Your task to perform on an android device: turn vacation reply on in the gmail app Image 0: 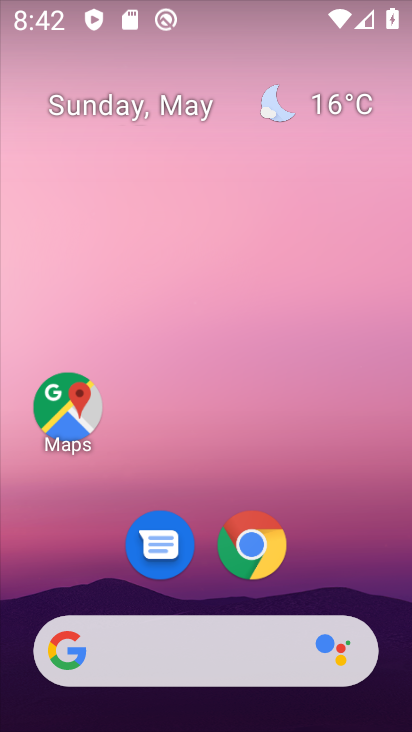
Step 0: drag from (347, 556) to (319, 47)
Your task to perform on an android device: turn vacation reply on in the gmail app Image 1: 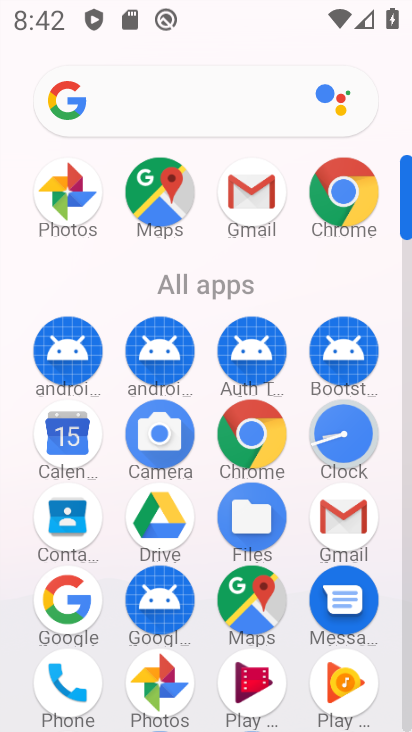
Step 1: click (257, 192)
Your task to perform on an android device: turn vacation reply on in the gmail app Image 2: 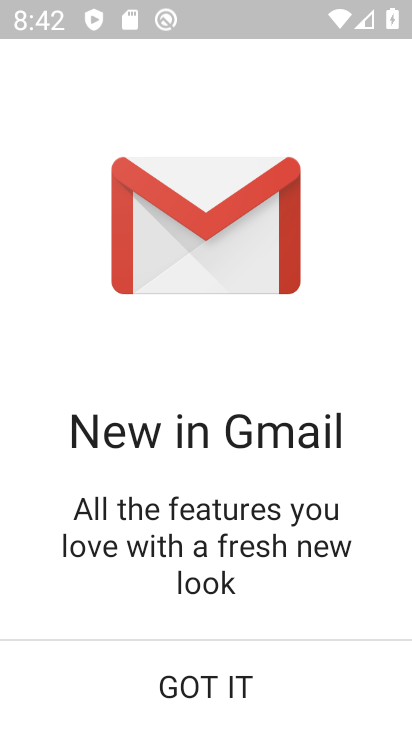
Step 2: click (196, 693)
Your task to perform on an android device: turn vacation reply on in the gmail app Image 3: 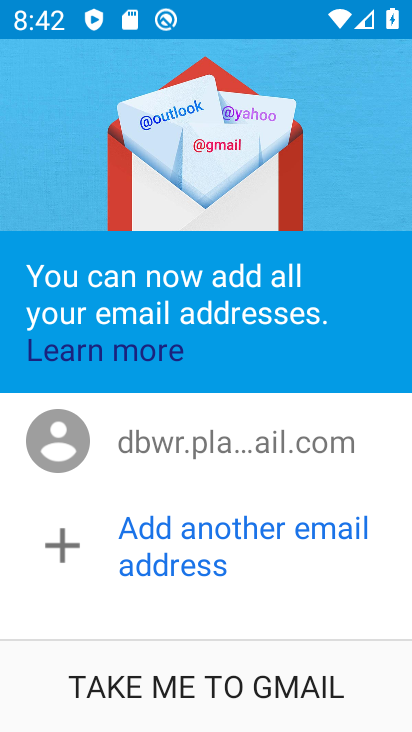
Step 3: click (239, 680)
Your task to perform on an android device: turn vacation reply on in the gmail app Image 4: 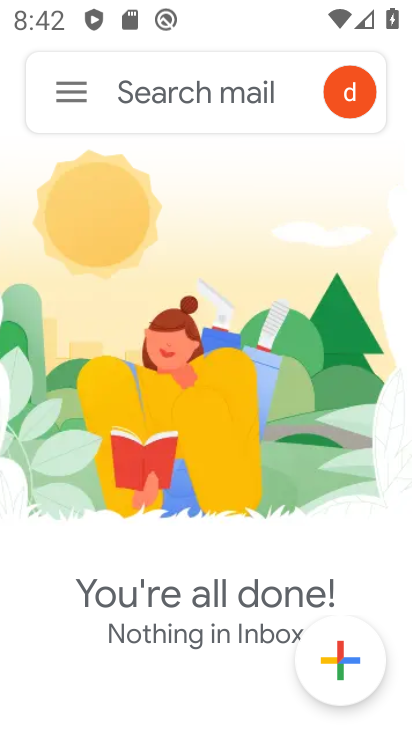
Step 4: click (65, 90)
Your task to perform on an android device: turn vacation reply on in the gmail app Image 5: 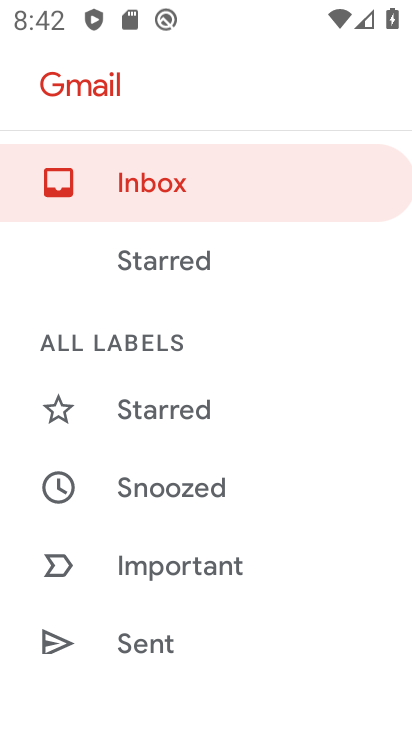
Step 5: drag from (233, 615) to (293, 268)
Your task to perform on an android device: turn vacation reply on in the gmail app Image 6: 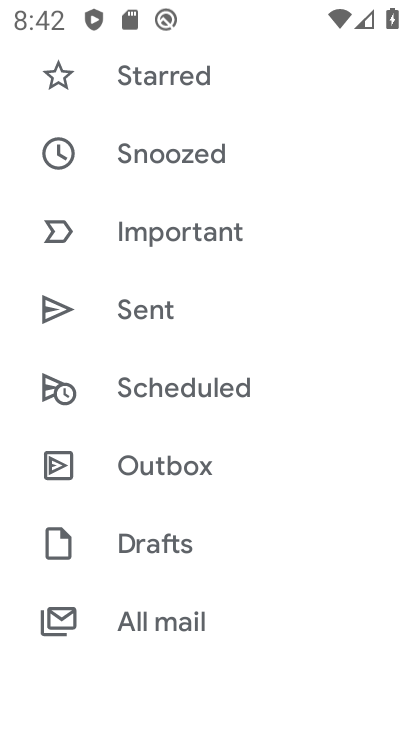
Step 6: drag from (286, 544) to (287, 309)
Your task to perform on an android device: turn vacation reply on in the gmail app Image 7: 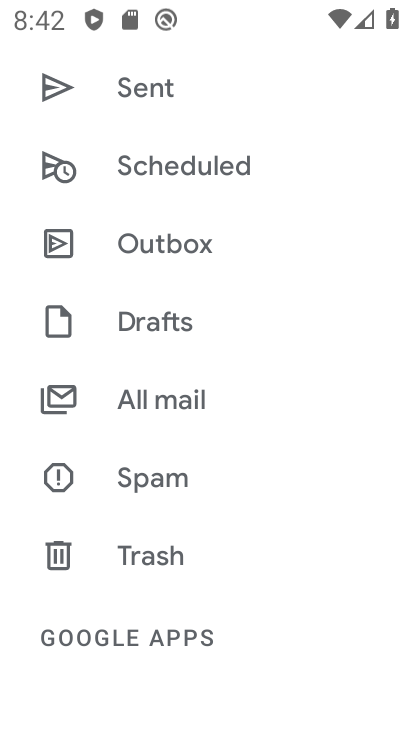
Step 7: drag from (264, 539) to (271, 332)
Your task to perform on an android device: turn vacation reply on in the gmail app Image 8: 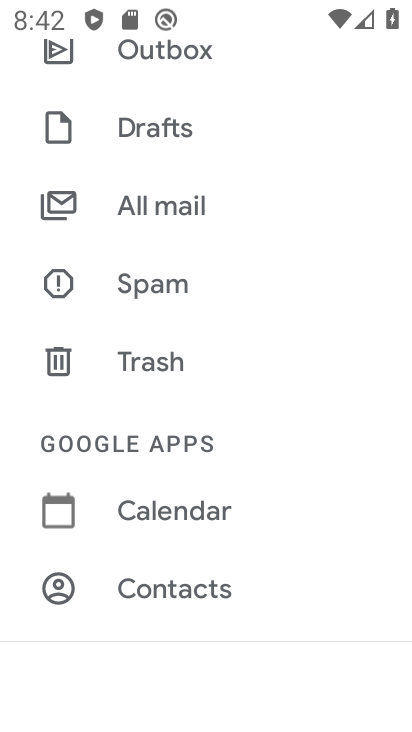
Step 8: drag from (326, 584) to (322, 337)
Your task to perform on an android device: turn vacation reply on in the gmail app Image 9: 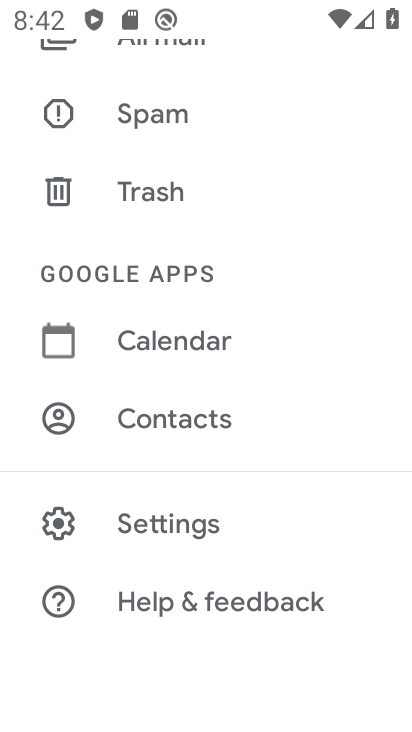
Step 9: click (159, 523)
Your task to perform on an android device: turn vacation reply on in the gmail app Image 10: 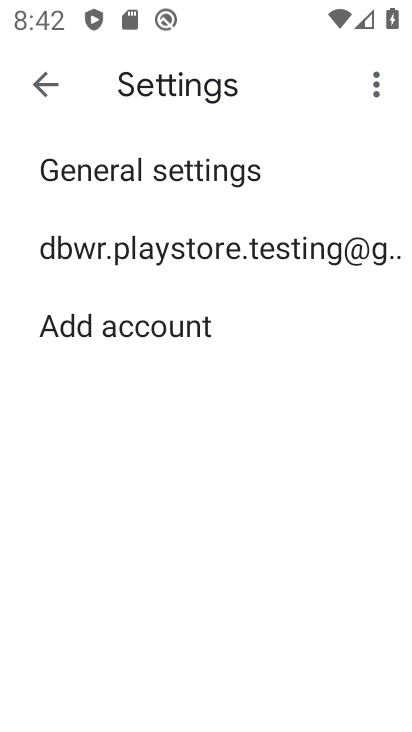
Step 10: click (288, 250)
Your task to perform on an android device: turn vacation reply on in the gmail app Image 11: 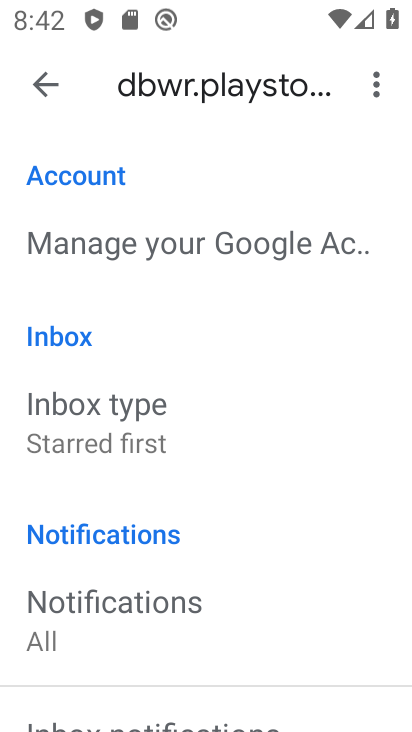
Step 11: drag from (254, 598) to (282, 299)
Your task to perform on an android device: turn vacation reply on in the gmail app Image 12: 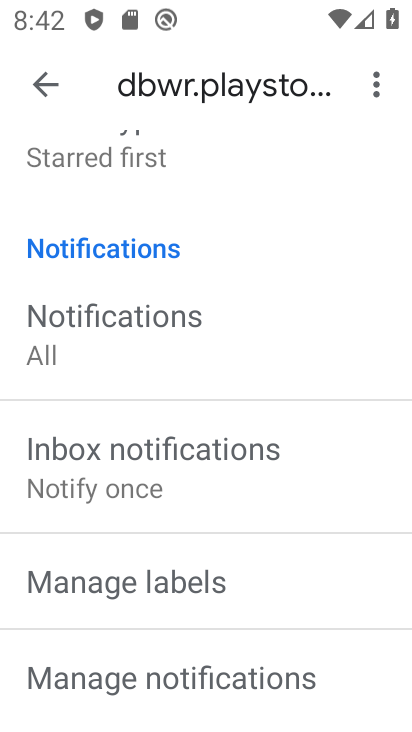
Step 12: drag from (332, 646) to (330, 308)
Your task to perform on an android device: turn vacation reply on in the gmail app Image 13: 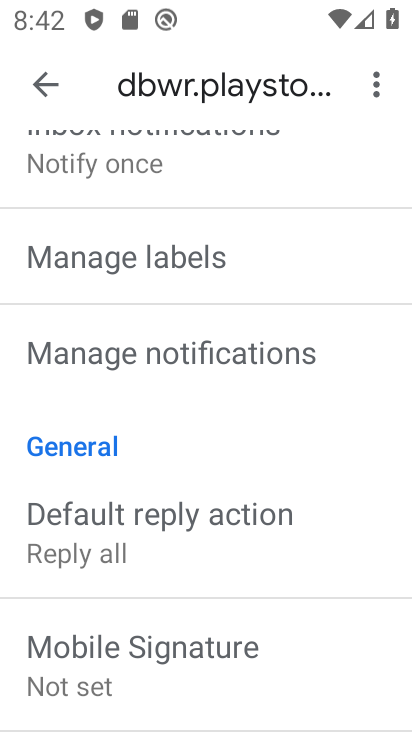
Step 13: drag from (328, 614) to (322, 355)
Your task to perform on an android device: turn vacation reply on in the gmail app Image 14: 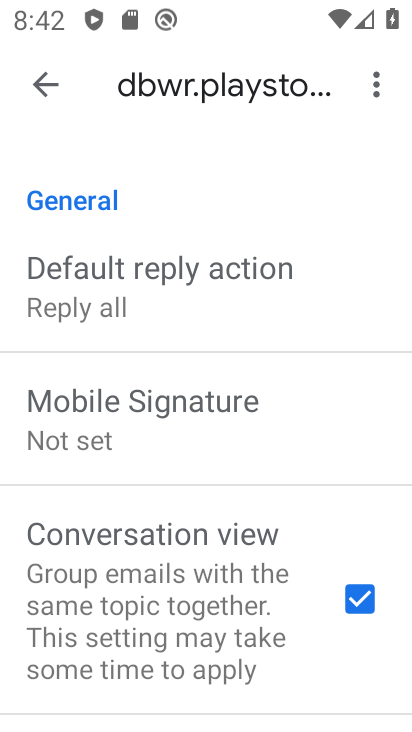
Step 14: drag from (288, 674) to (282, 343)
Your task to perform on an android device: turn vacation reply on in the gmail app Image 15: 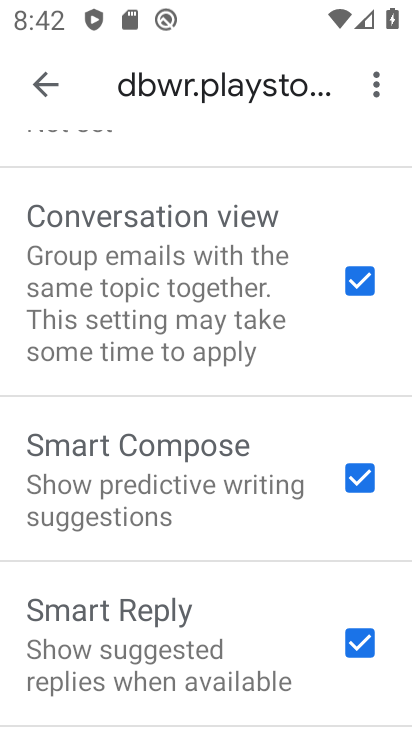
Step 15: drag from (272, 650) to (289, 332)
Your task to perform on an android device: turn vacation reply on in the gmail app Image 16: 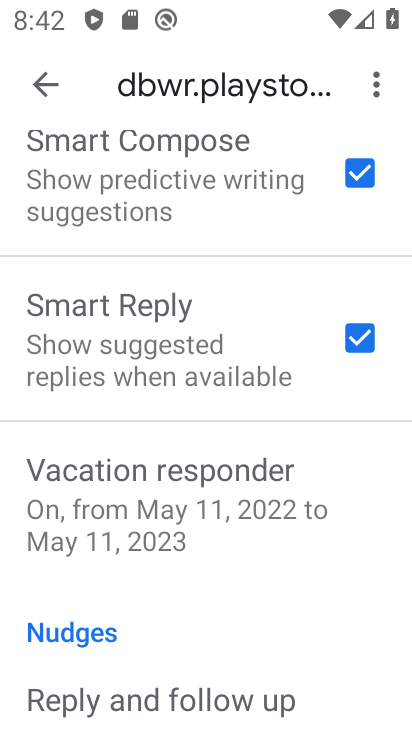
Step 16: click (112, 490)
Your task to perform on an android device: turn vacation reply on in the gmail app Image 17: 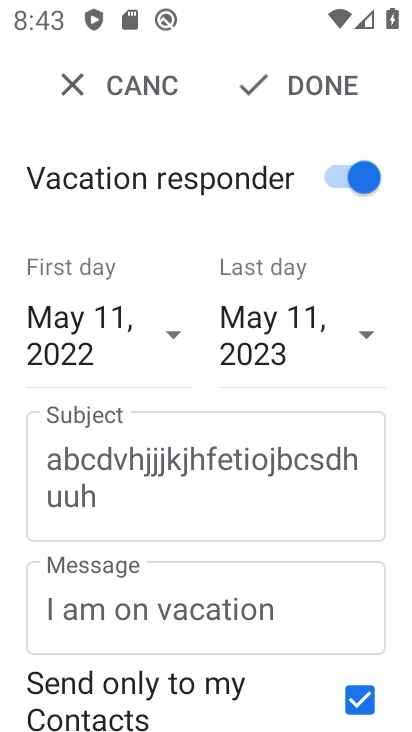
Step 17: click (308, 83)
Your task to perform on an android device: turn vacation reply on in the gmail app Image 18: 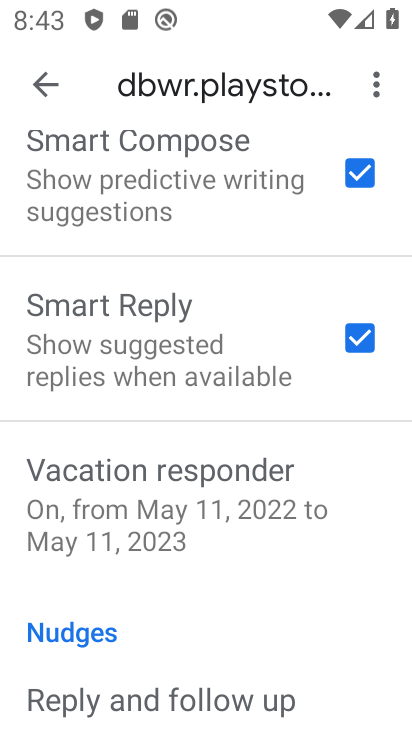
Step 18: task complete